Your task to perform on an android device: Open maps Image 0: 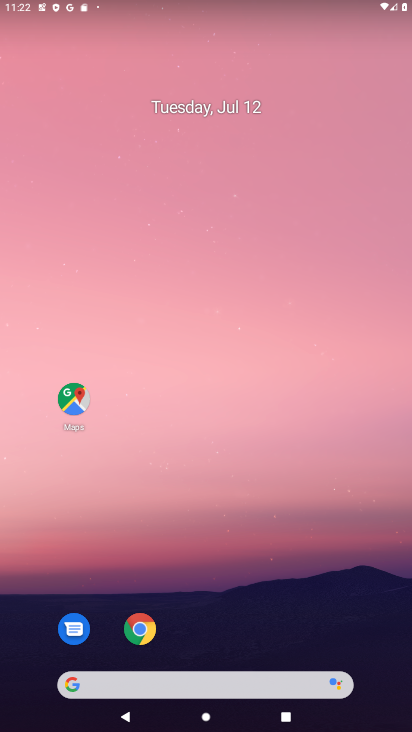
Step 0: drag from (214, 616) to (204, 362)
Your task to perform on an android device: Open maps Image 1: 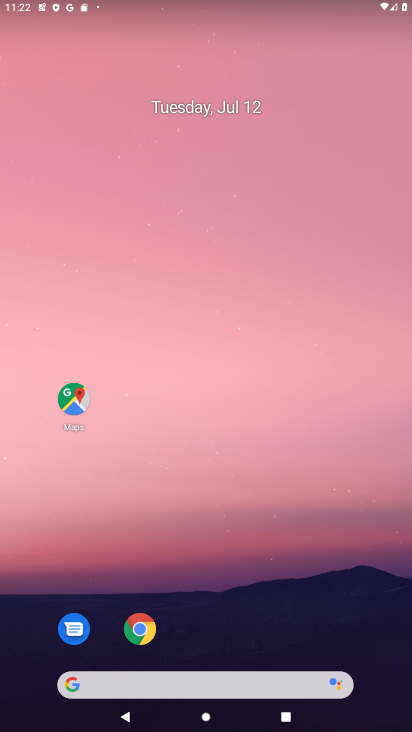
Step 1: drag from (180, 614) to (199, 234)
Your task to perform on an android device: Open maps Image 2: 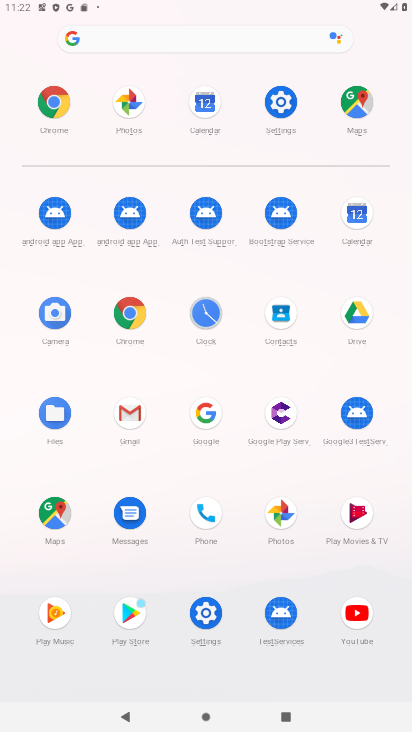
Step 2: click (51, 509)
Your task to perform on an android device: Open maps Image 3: 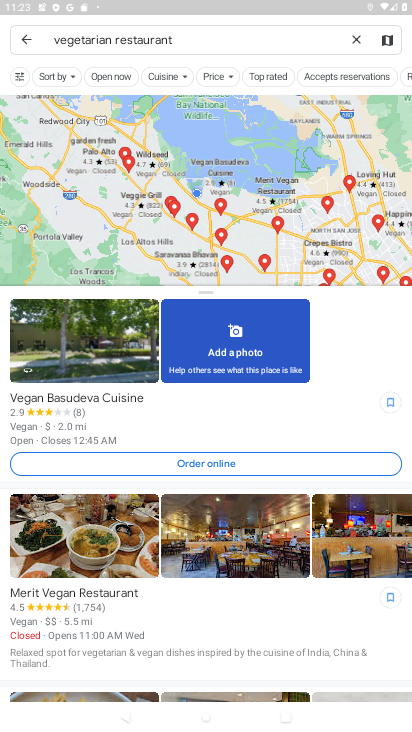
Step 3: click (353, 35)
Your task to perform on an android device: Open maps Image 4: 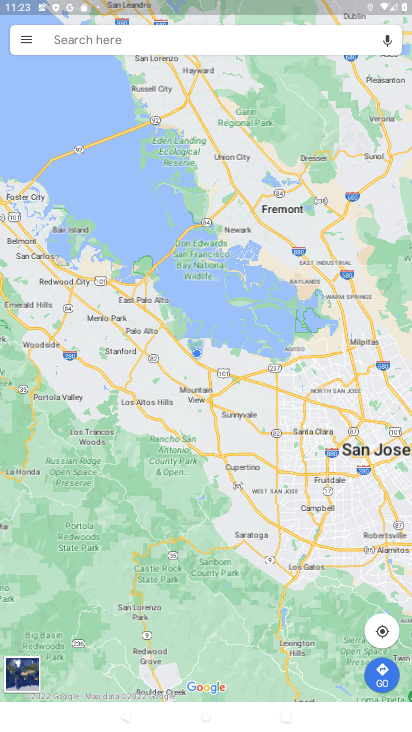
Step 4: task complete